Your task to perform on an android device: install app "Airtel Thanks" Image 0: 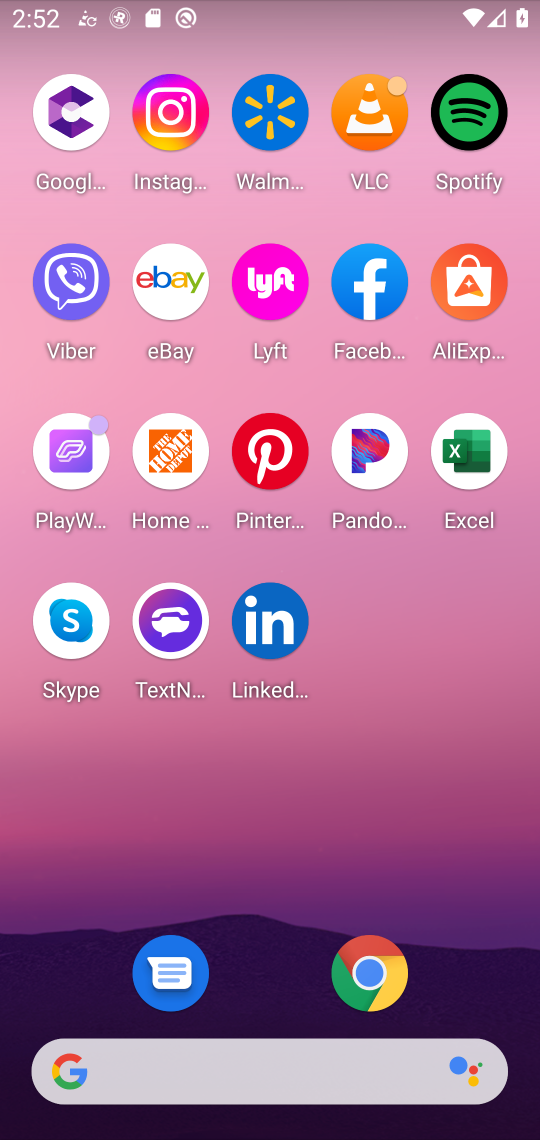
Step 0: drag from (225, 249) to (288, 910)
Your task to perform on an android device: install app "Airtel Thanks" Image 1: 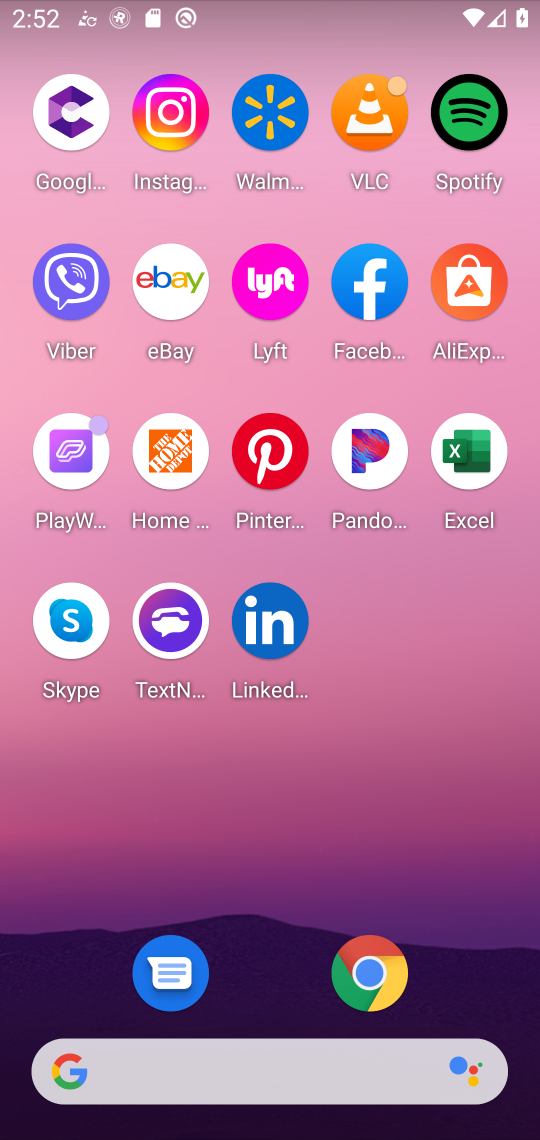
Step 1: drag from (108, 721) to (518, 766)
Your task to perform on an android device: install app "Airtel Thanks" Image 2: 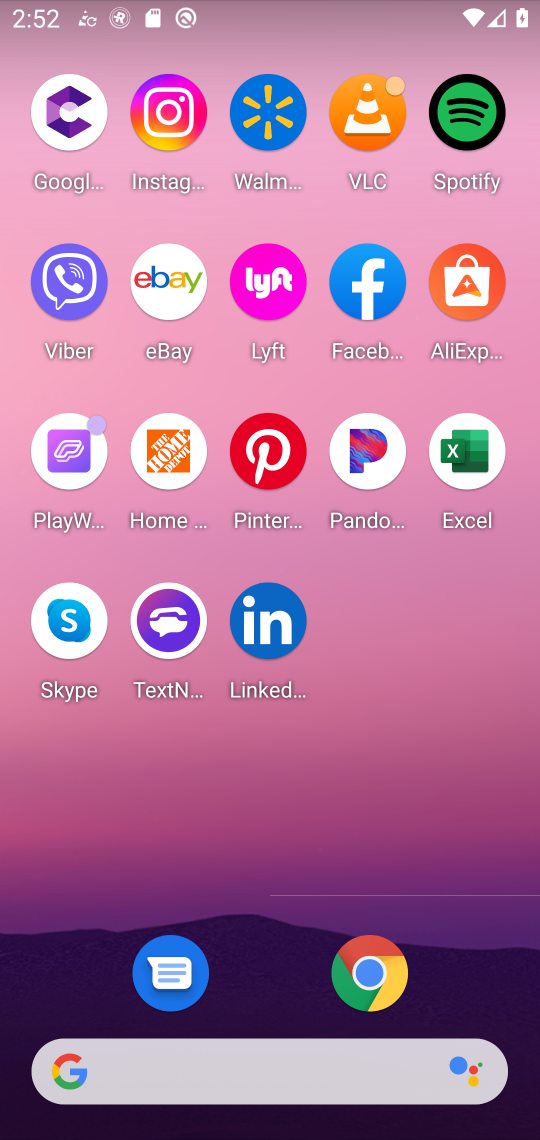
Step 2: drag from (384, 752) to (27, 715)
Your task to perform on an android device: install app "Airtel Thanks" Image 3: 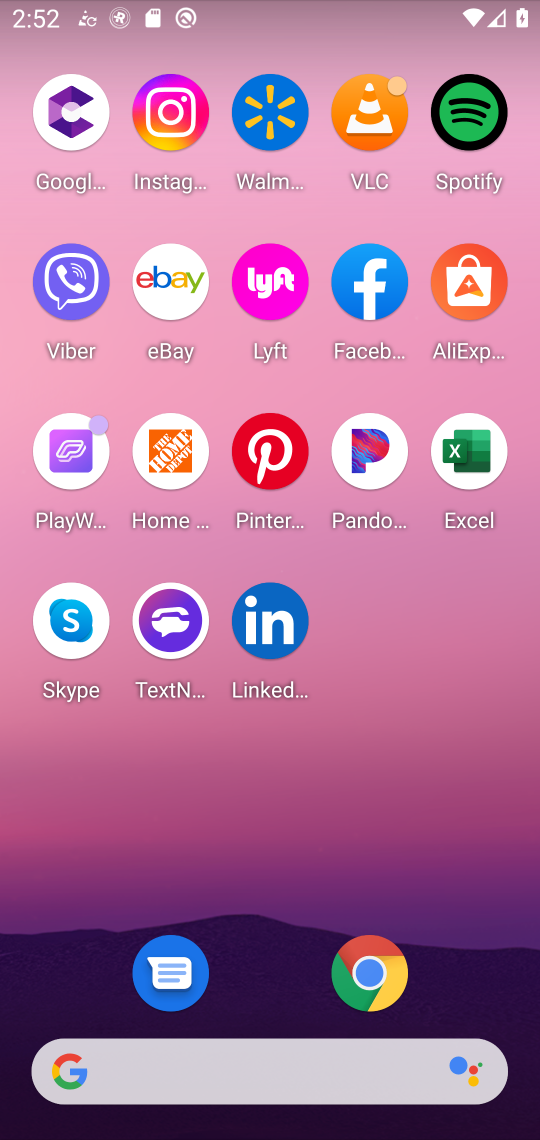
Step 3: drag from (417, 730) to (13, 536)
Your task to perform on an android device: install app "Airtel Thanks" Image 4: 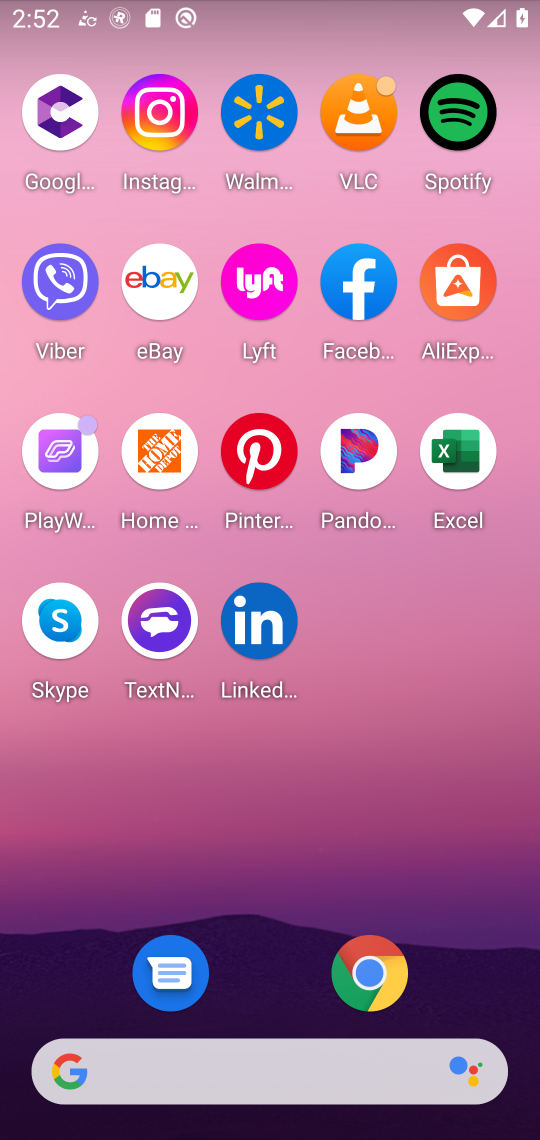
Step 4: drag from (232, 557) to (527, 593)
Your task to perform on an android device: install app "Airtel Thanks" Image 5: 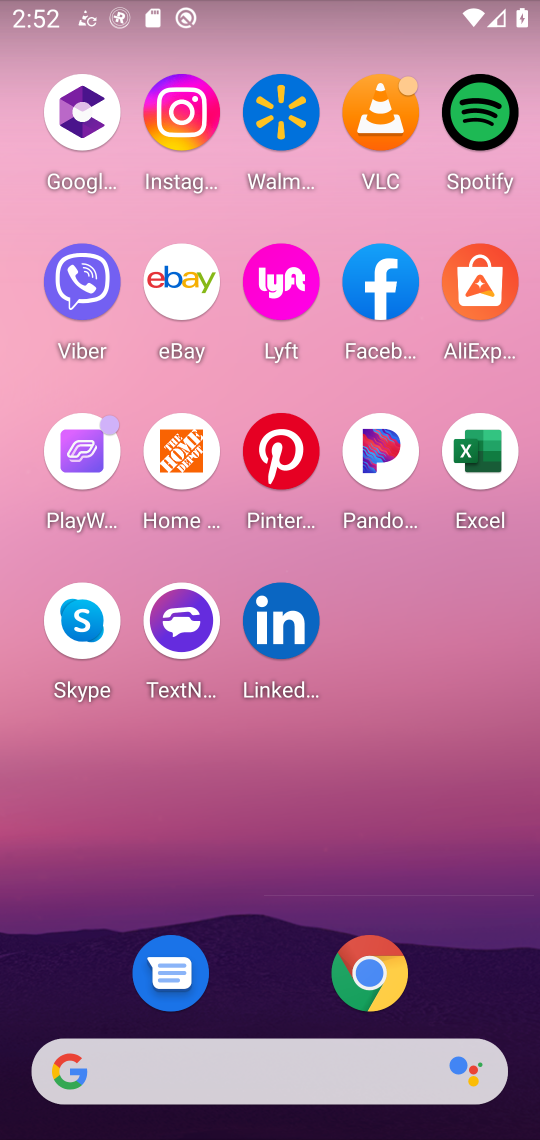
Step 5: drag from (242, 1046) to (239, 391)
Your task to perform on an android device: install app "Airtel Thanks" Image 6: 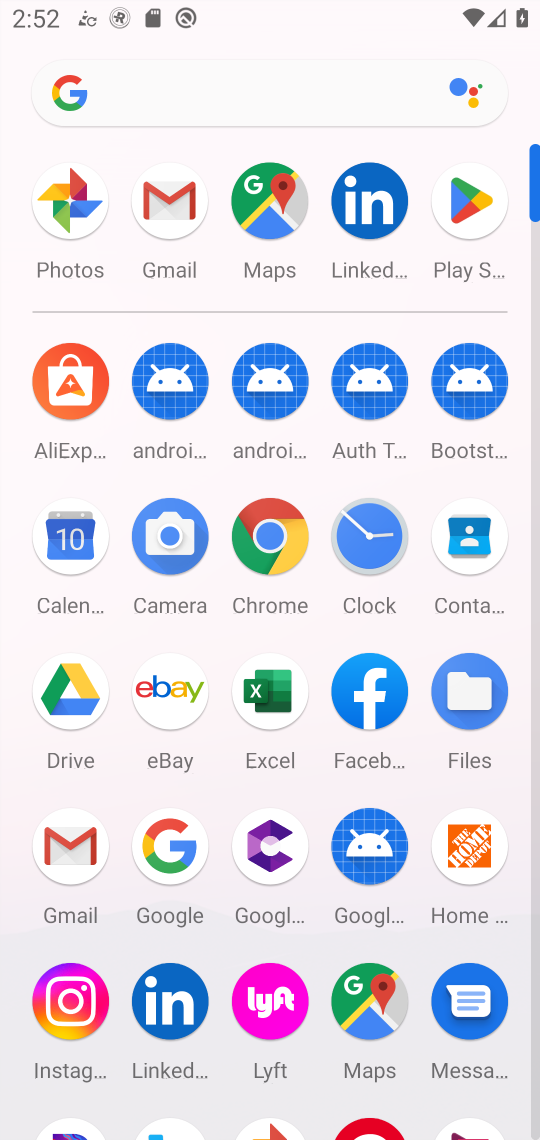
Step 6: click (461, 184)
Your task to perform on an android device: install app "Airtel Thanks" Image 7: 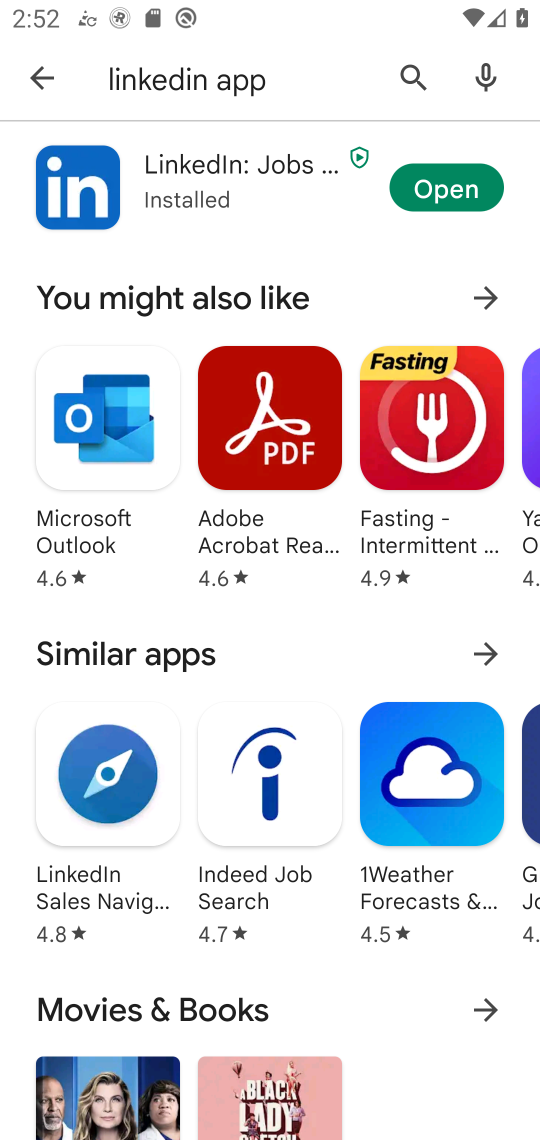
Step 7: click (39, 62)
Your task to perform on an android device: install app "Airtel Thanks" Image 8: 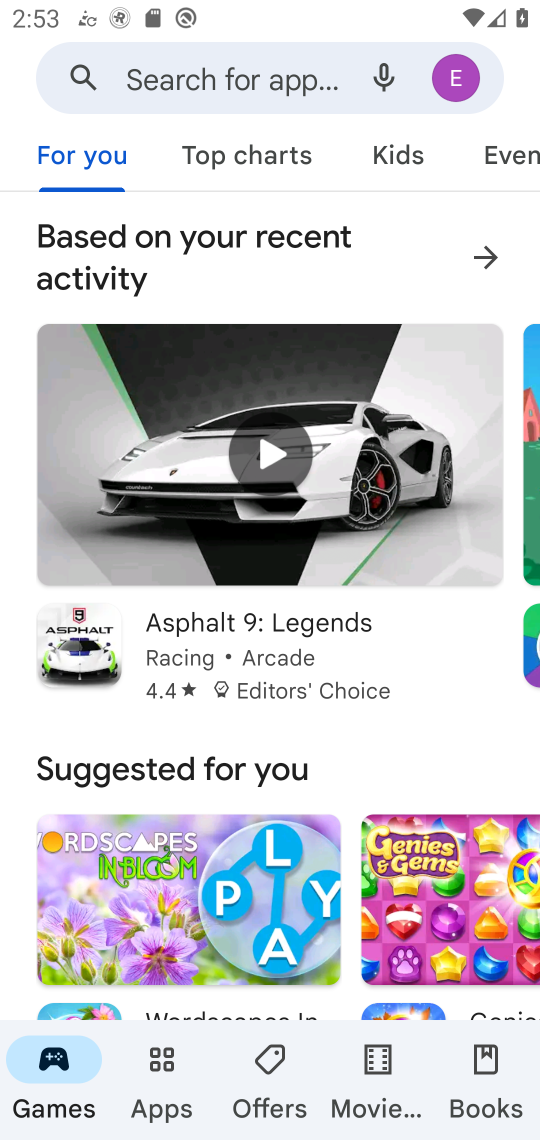
Step 8: click (251, 79)
Your task to perform on an android device: install app "Airtel Thanks" Image 9: 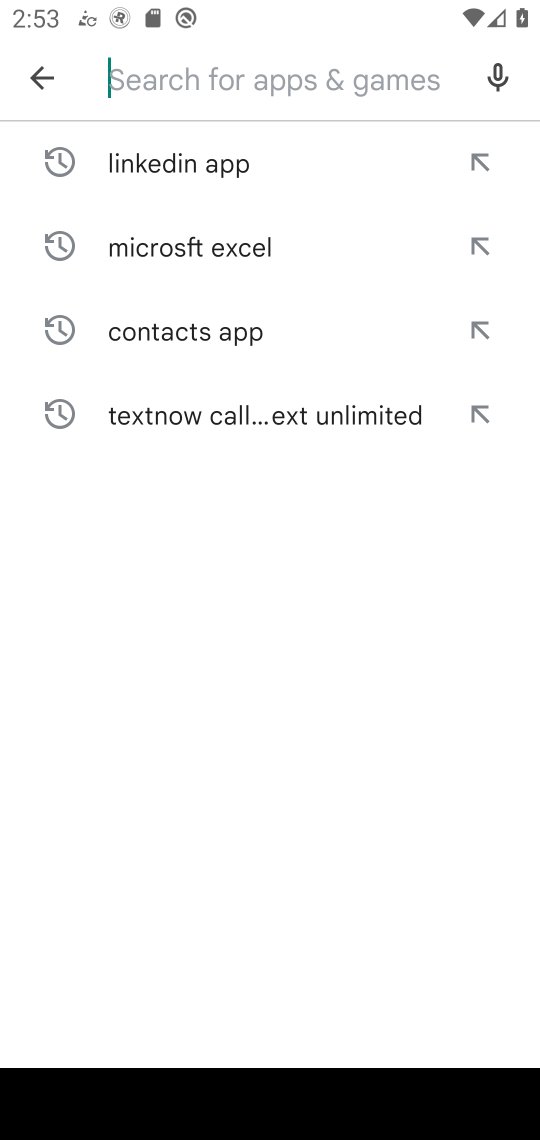
Step 9: type "airtel thanks"
Your task to perform on an android device: install app "Airtel Thanks" Image 10: 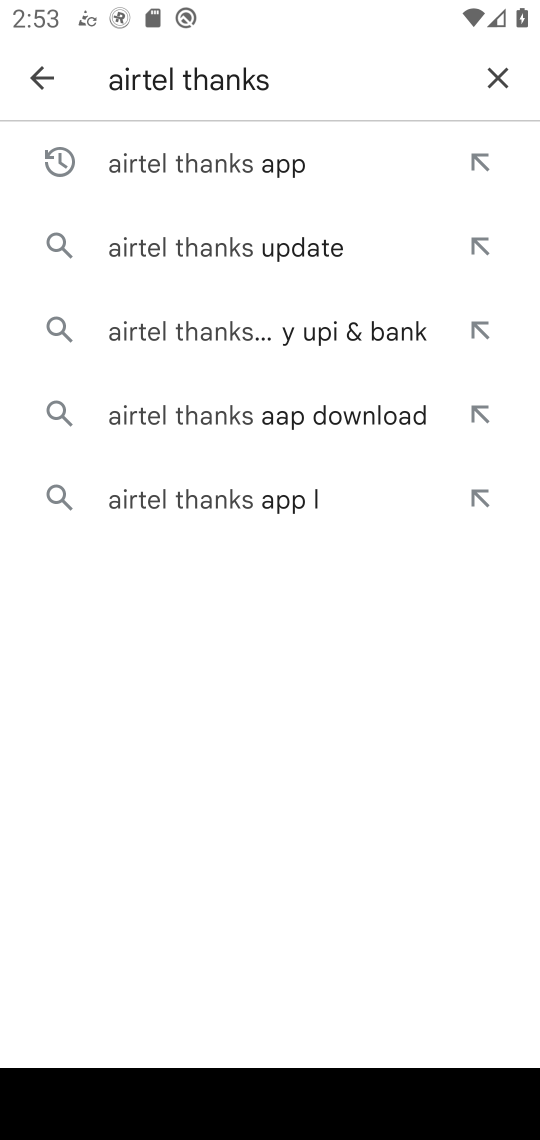
Step 10: click (182, 168)
Your task to perform on an android device: install app "Airtel Thanks" Image 11: 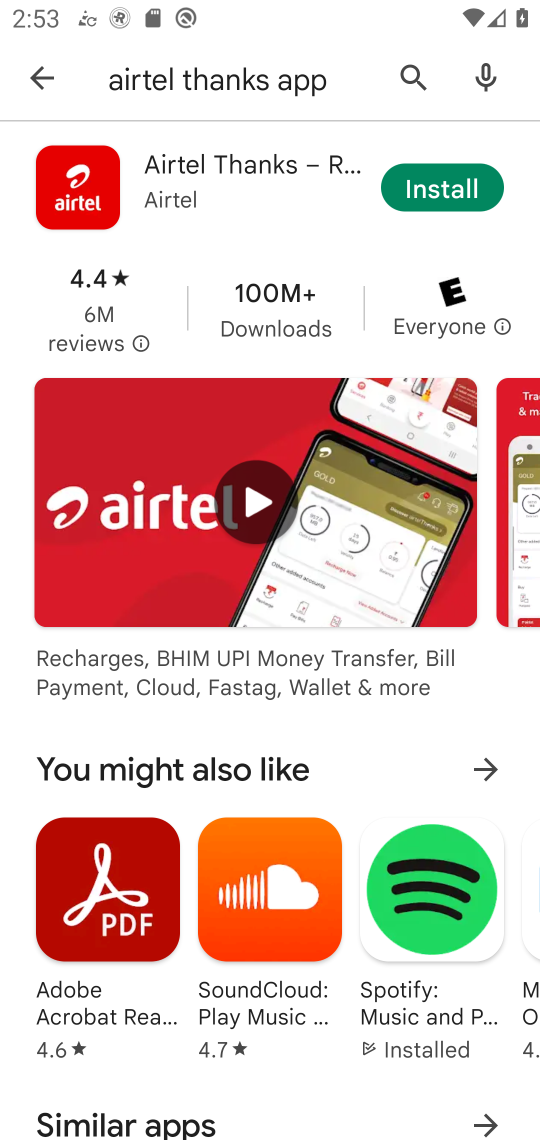
Step 11: click (417, 159)
Your task to perform on an android device: install app "Airtel Thanks" Image 12: 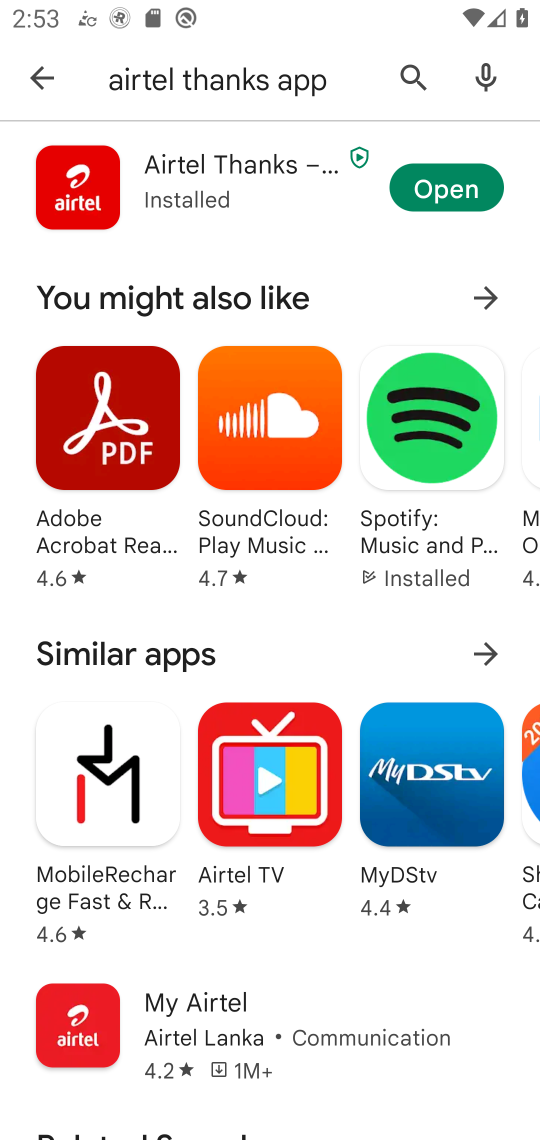
Step 12: click (457, 200)
Your task to perform on an android device: install app "Airtel Thanks" Image 13: 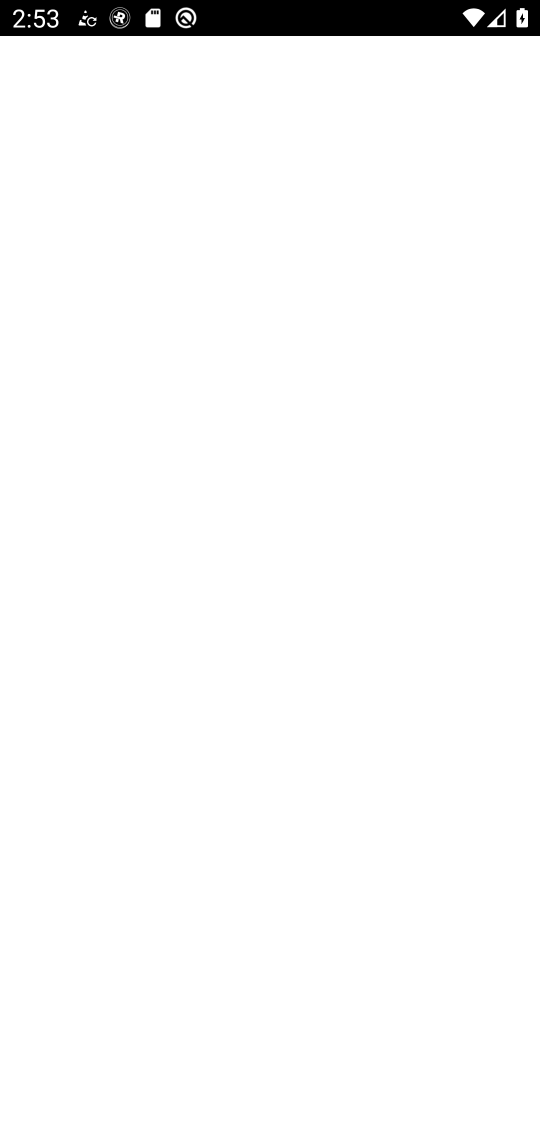
Step 13: task complete